Your task to perform on an android device: change alarm snooze length Image 0: 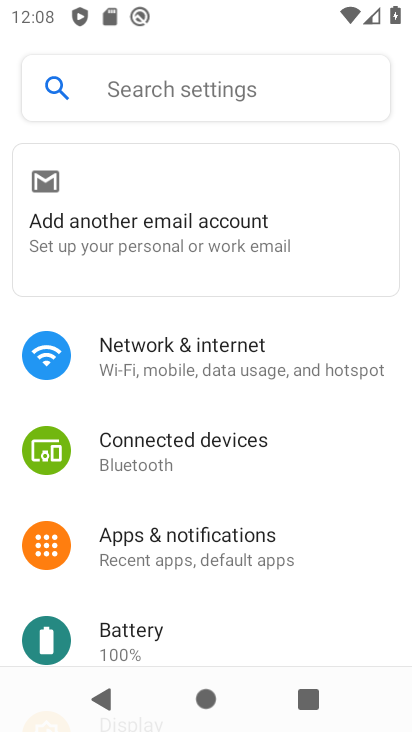
Step 0: press home button
Your task to perform on an android device: change alarm snooze length Image 1: 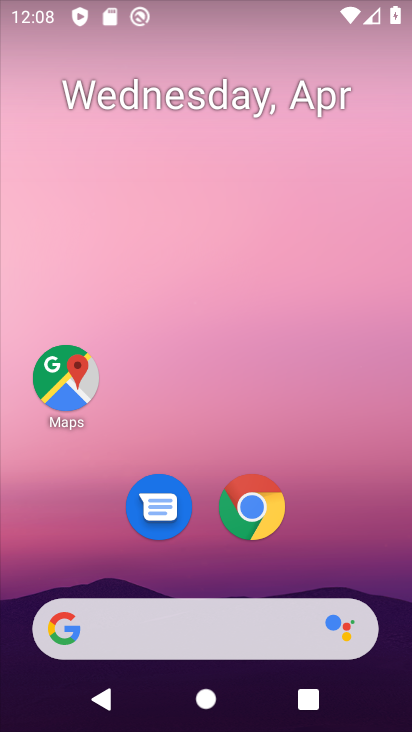
Step 1: drag from (199, 571) to (202, 173)
Your task to perform on an android device: change alarm snooze length Image 2: 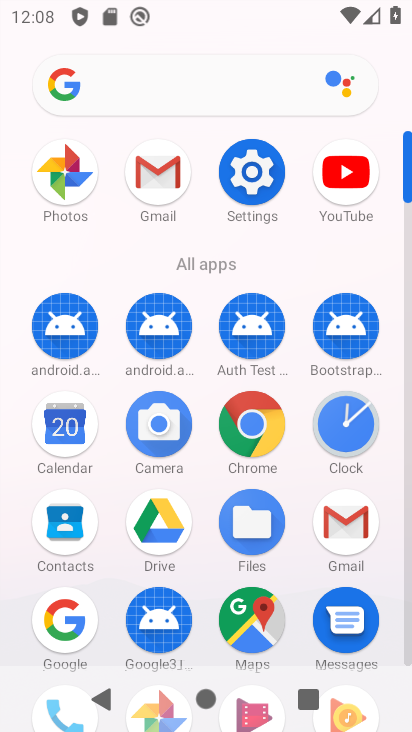
Step 2: click (342, 426)
Your task to perform on an android device: change alarm snooze length Image 3: 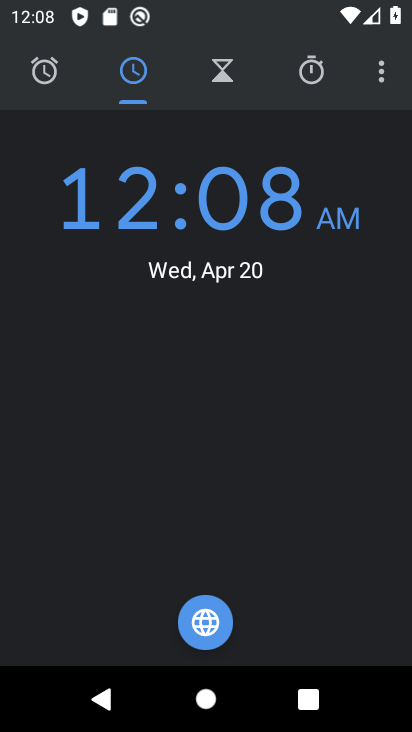
Step 3: click (383, 70)
Your task to perform on an android device: change alarm snooze length Image 4: 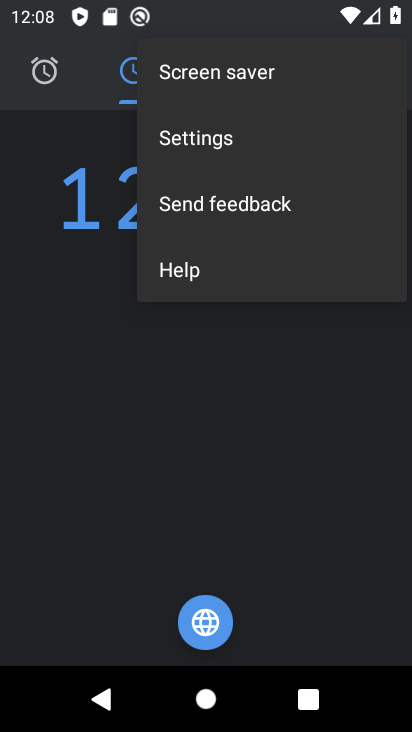
Step 4: click (194, 151)
Your task to perform on an android device: change alarm snooze length Image 5: 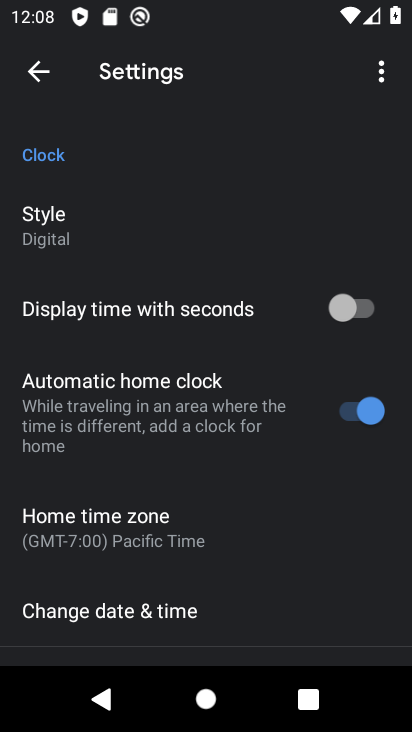
Step 5: drag from (214, 565) to (222, 240)
Your task to perform on an android device: change alarm snooze length Image 6: 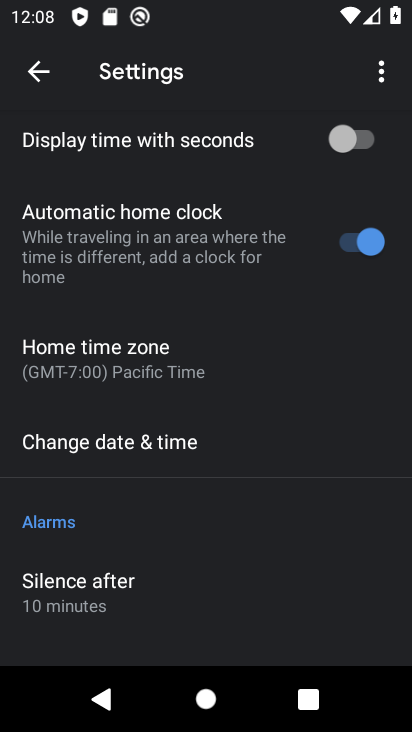
Step 6: drag from (213, 591) to (251, 275)
Your task to perform on an android device: change alarm snooze length Image 7: 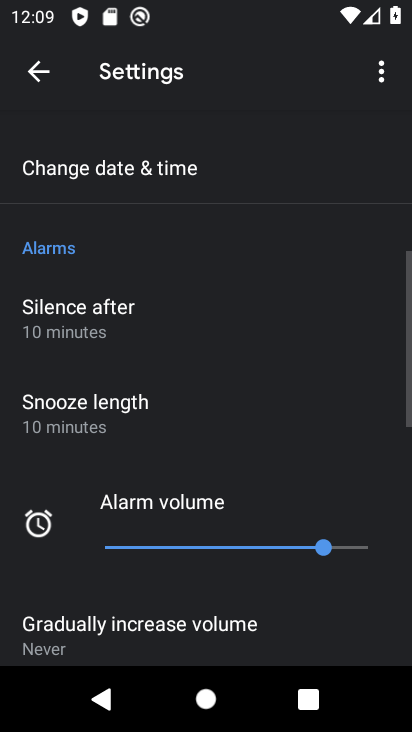
Step 7: click (118, 416)
Your task to perform on an android device: change alarm snooze length Image 8: 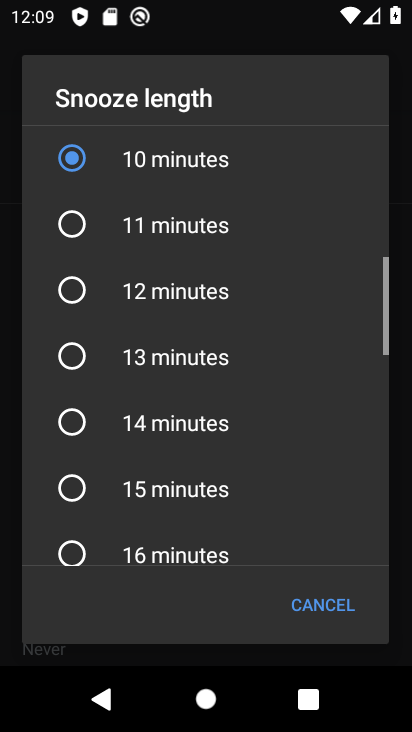
Step 8: click (159, 424)
Your task to perform on an android device: change alarm snooze length Image 9: 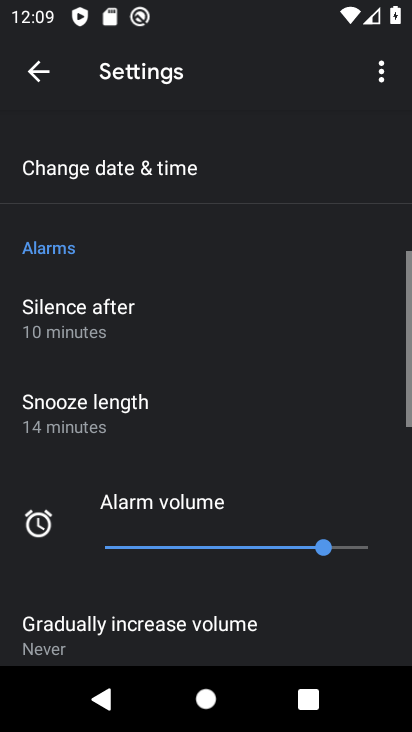
Step 9: task complete